Your task to perform on an android device: Open Google Chrome and open the bookmarks view Image 0: 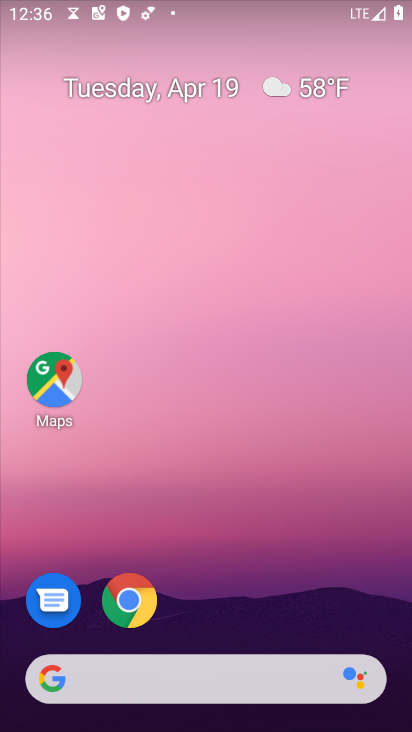
Step 0: drag from (75, 273) to (384, 169)
Your task to perform on an android device: Open Google Chrome and open the bookmarks view Image 1: 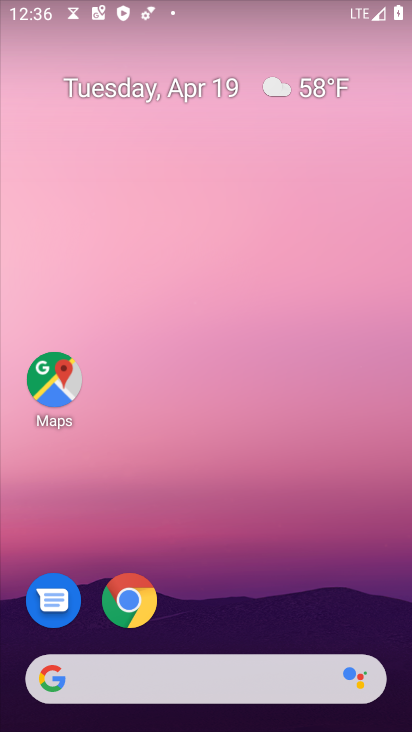
Step 1: click (125, 607)
Your task to perform on an android device: Open Google Chrome and open the bookmarks view Image 2: 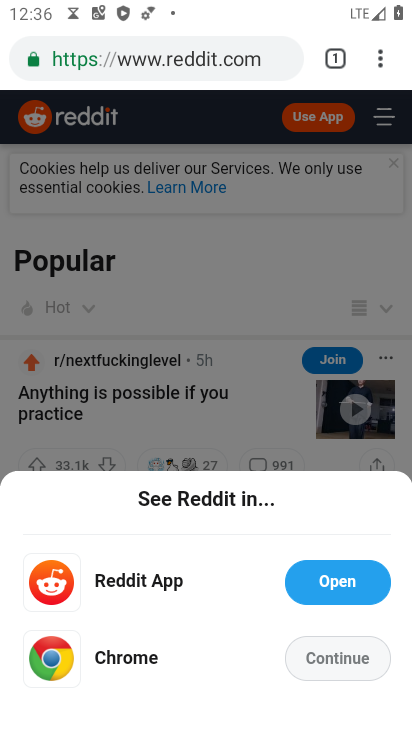
Step 2: click (390, 60)
Your task to perform on an android device: Open Google Chrome and open the bookmarks view Image 3: 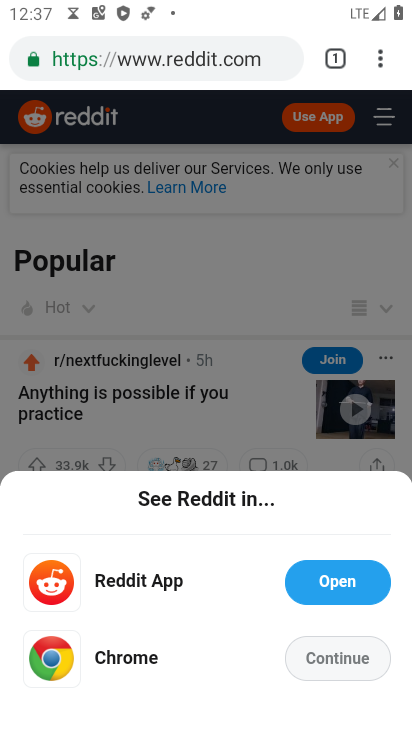
Step 3: click (383, 49)
Your task to perform on an android device: Open Google Chrome and open the bookmarks view Image 4: 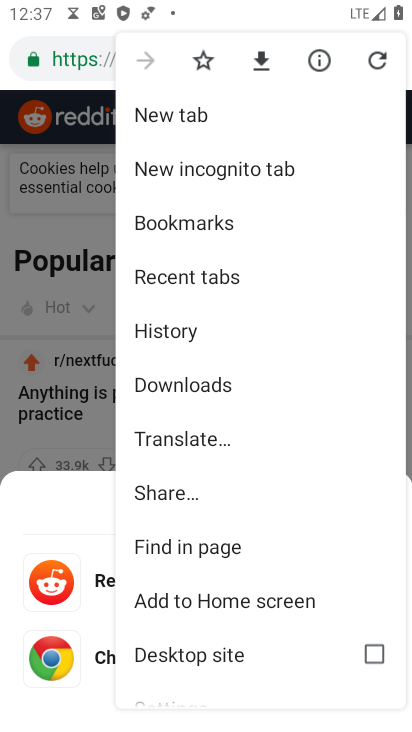
Step 4: click (198, 238)
Your task to perform on an android device: Open Google Chrome and open the bookmarks view Image 5: 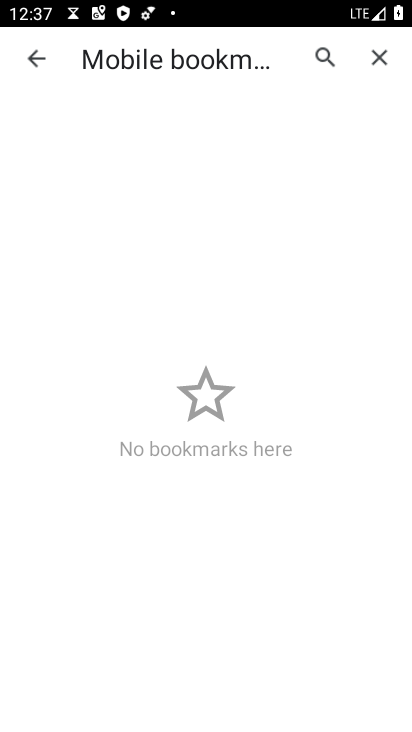
Step 5: task complete